Your task to perform on an android device: Play the last video I watched on Youtube Image 0: 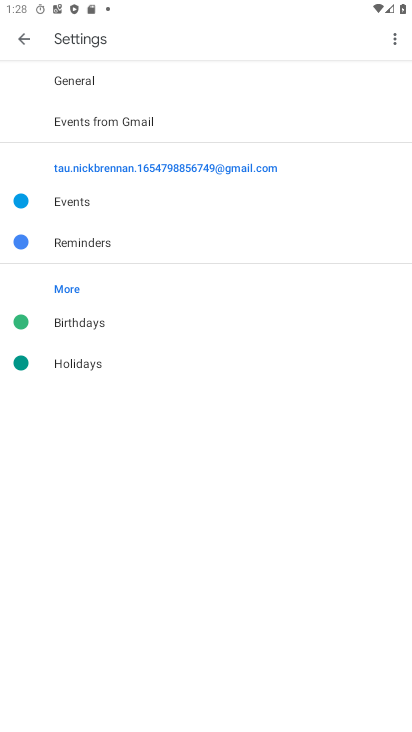
Step 0: press home button
Your task to perform on an android device: Play the last video I watched on Youtube Image 1: 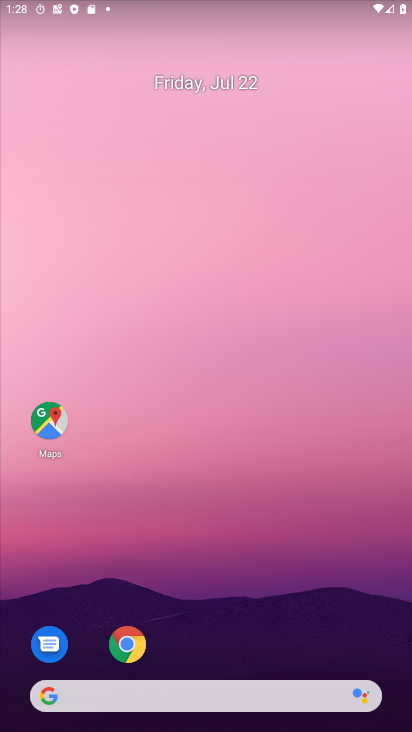
Step 1: drag from (156, 608) to (197, 307)
Your task to perform on an android device: Play the last video I watched on Youtube Image 2: 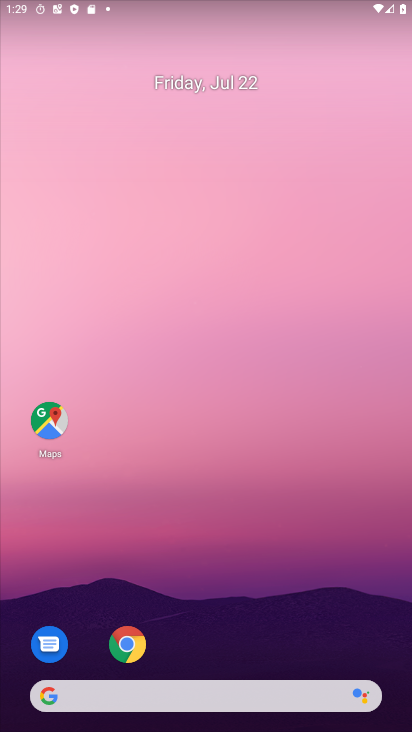
Step 2: drag from (187, 658) to (166, 311)
Your task to perform on an android device: Play the last video I watched on Youtube Image 3: 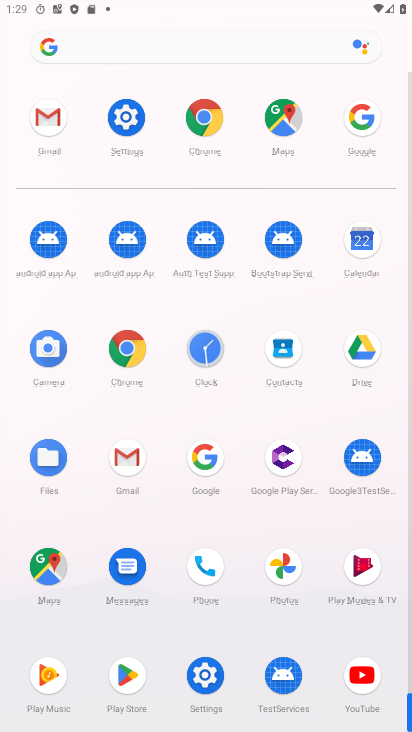
Step 3: click (346, 677)
Your task to perform on an android device: Play the last video I watched on Youtube Image 4: 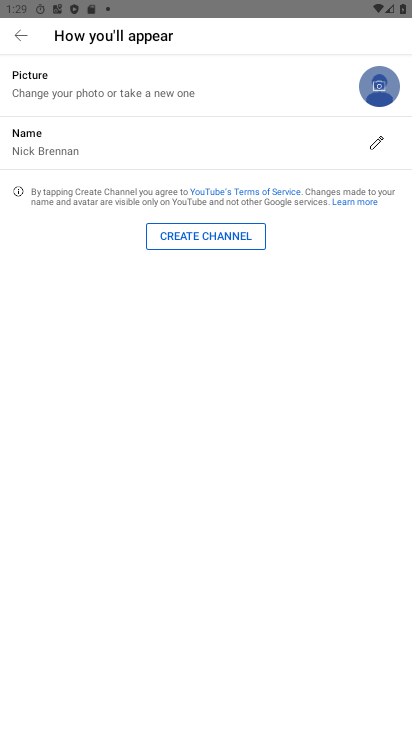
Step 4: press home button
Your task to perform on an android device: Play the last video I watched on Youtube Image 5: 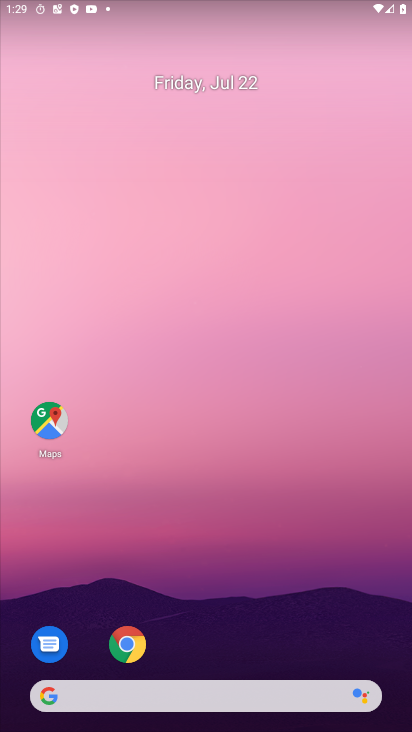
Step 5: drag from (277, 674) to (362, 78)
Your task to perform on an android device: Play the last video I watched on Youtube Image 6: 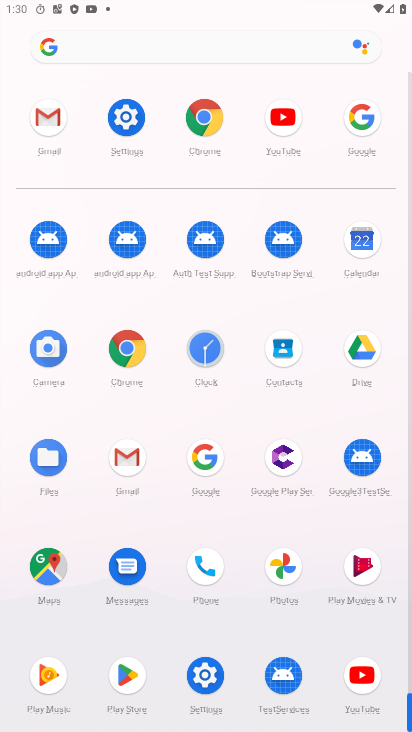
Step 6: drag from (222, 500) to (161, 204)
Your task to perform on an android device: Play the last video I watched on Youtube Image 7: 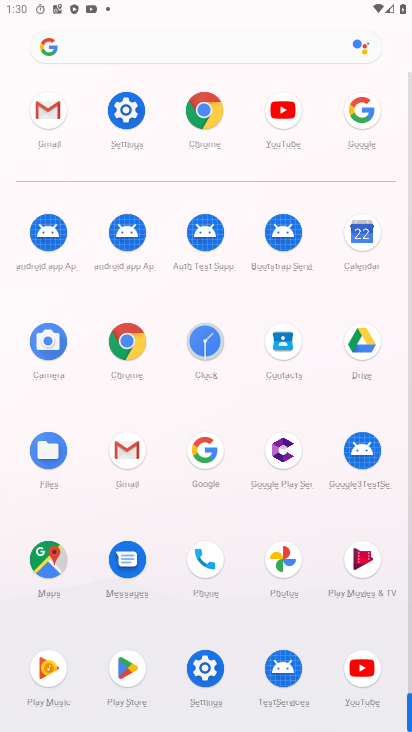
Step 7: click (366, 665)
Your task to perform on an android device: Play the last video I watched on Youtube Image 8: 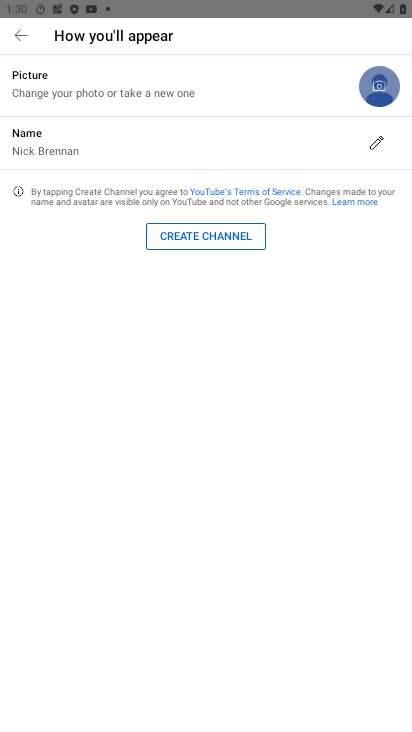
Step 8: click (28, 41)
Your task to perform on an android device: Play the last video I watched on Youtube Image 9: 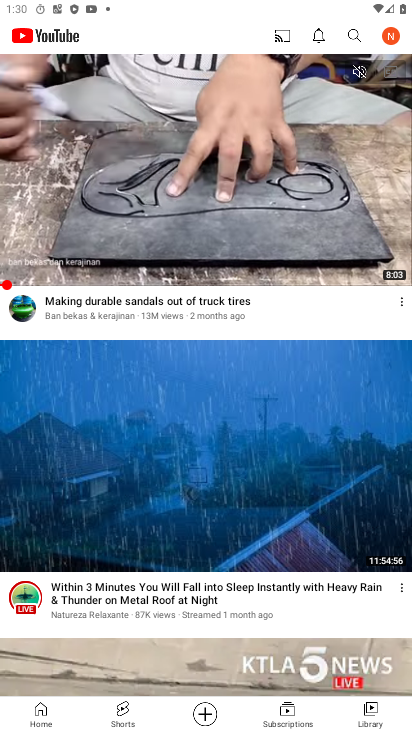
Step 9: click (368, 725)
Your task to perform on an android device: Play the last video I watched on Youtube Image 10: 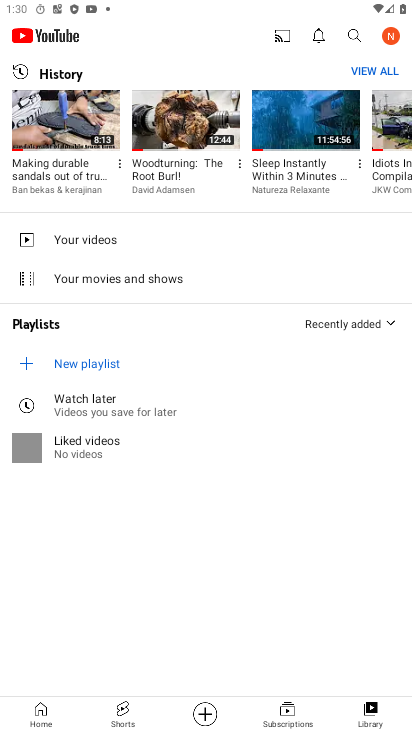
Step 10: click (92, 127)
Your task to perform on an android device: Play the last video I watched on Youtube Image 11: 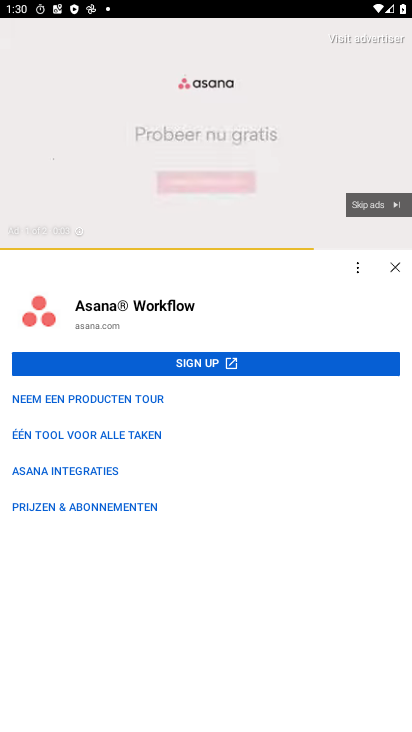
Step 11: click (353, 195)
Your task to perform on an android device: Play the last video I watched on Youtube Image 12: 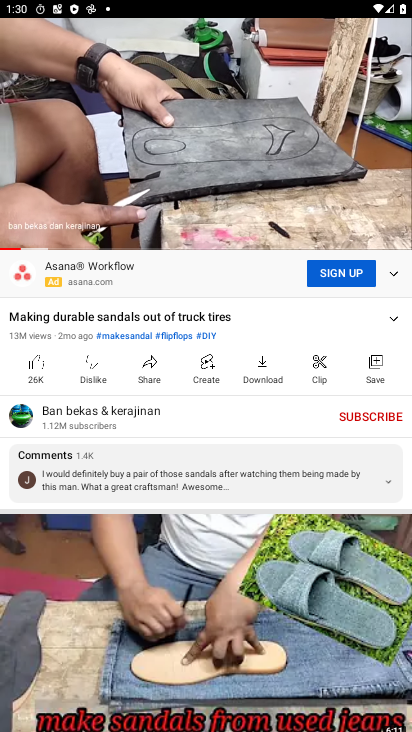
Step 12: task complete